Your task to perform on an android device: Search for pizza restaurants on Maps Image 0: 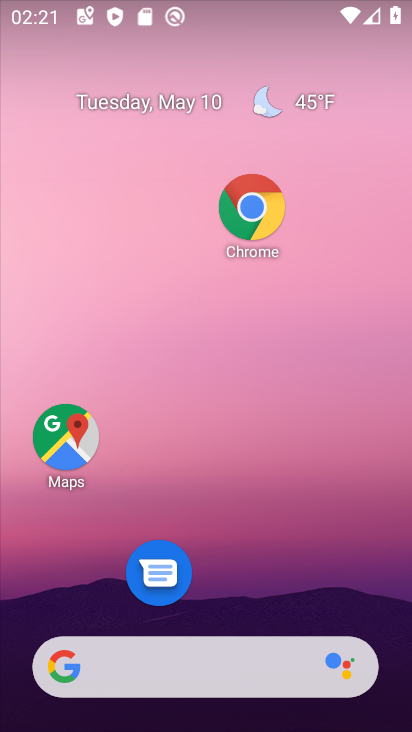
Step 0: click (69, 449)
Your task to perform on an android device: Search for pizza restaurants on Maps Image 1: 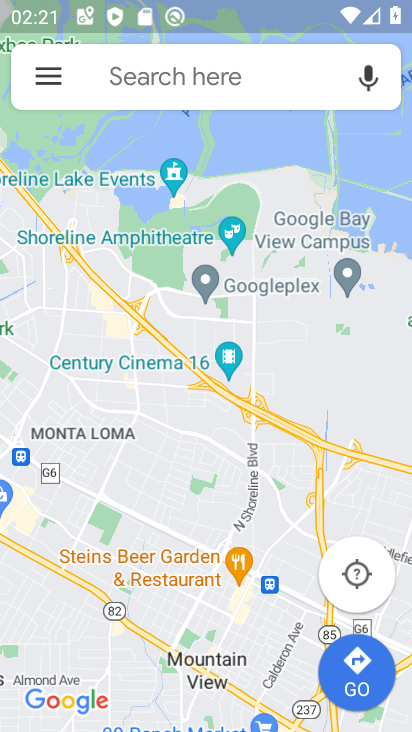
Step 1: click (179, 78)
Your task to perform on an android device: Search for pizza restaurants on Maps Image 2: 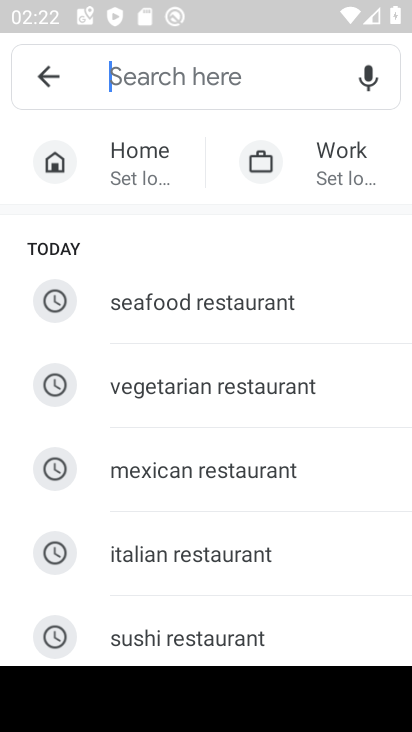
Step 2: type "Pizza Restaurant"
Your task to perform on an android device: Search for pizza restaurants on Maps Image 3: 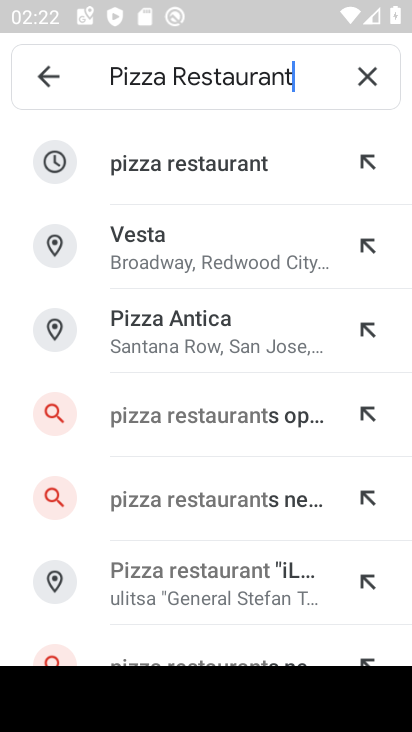
Step 3: click (216, 176)
Your task to perform on an android device: Search for pizza restaurants on Maps Image 4: 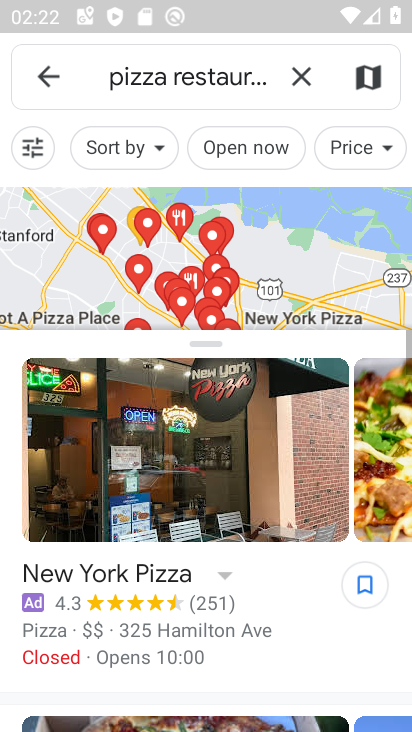
Step 4: task complete